Your task to perform on an android device: check storage Image 0: 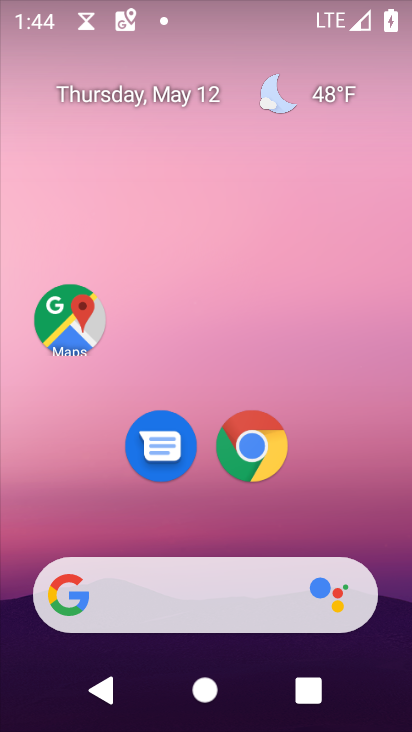
Step 0: drag from (295, 524) to (262, 102)
Your task to perform on an android device: check storage Image 1: 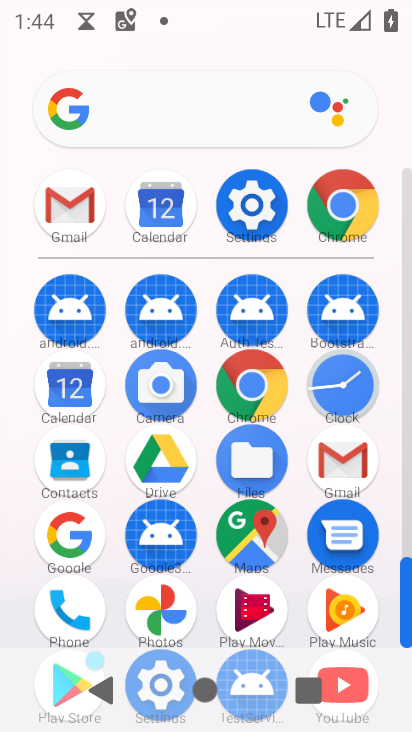
Step 1: click (245, 195)
Your task to perform on an android device: check storage Image 2: 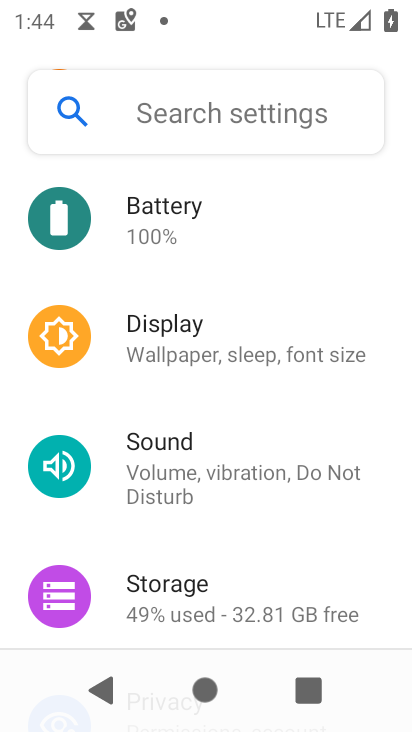
Step 2: click (242, 595)
Your task to perform on an android device: check storage Image 3: 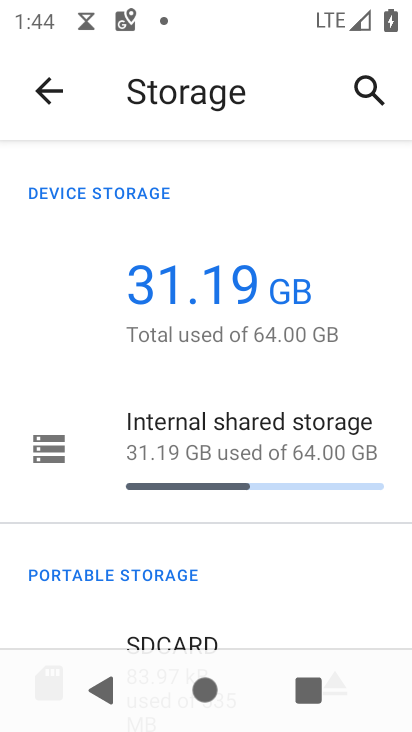
Step 3: task complete